Your task to perform on an android device: change the upload size in google photos Image 0: 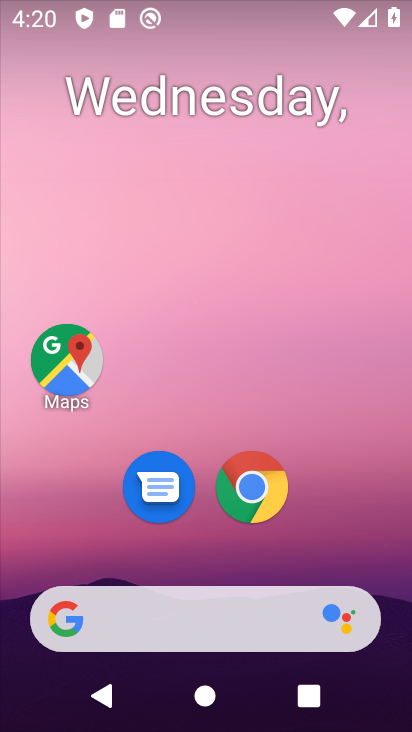
Step 0: press home button
Your task to perform on an android device: change the upload size in google photos Image 1: 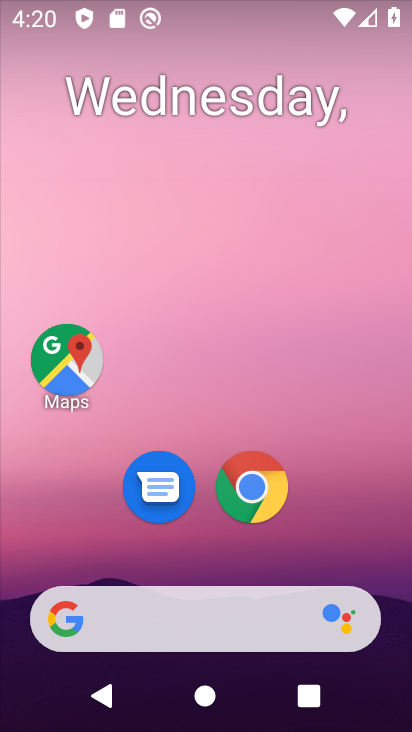
Step 1: drag from (203, 485) to (223, 59)
Your task to perform on an android device: change the upload size in google photos Image 2: 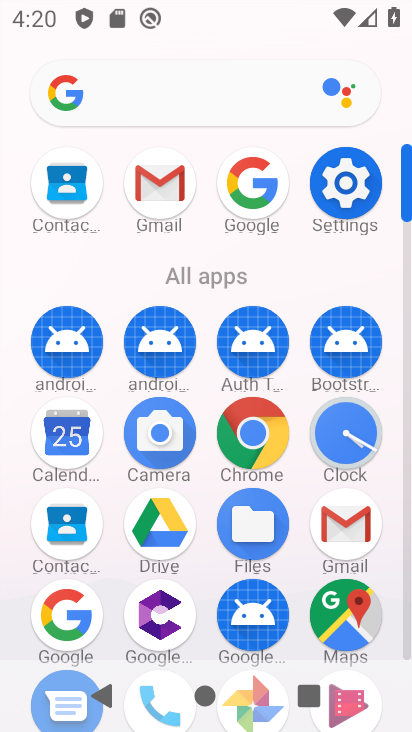
Step 2: drag from (205, 564) to (217, 127)
Your task to perform on an android device: change the upload size in google photos Image 3: 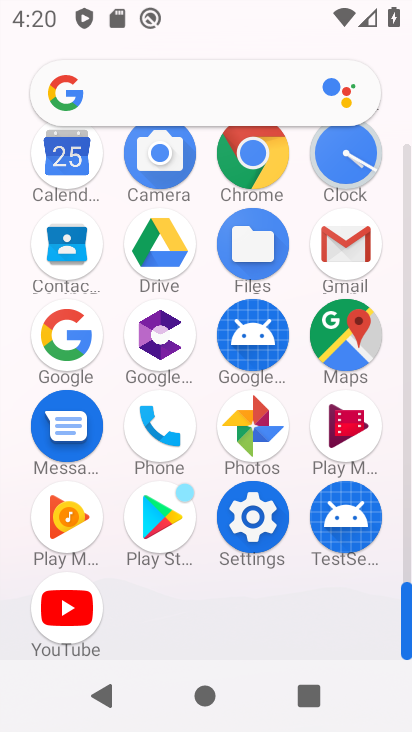
Step 3: click (252, 420)
Your task to perform on an android device: change the upload size in google photos Image 4: 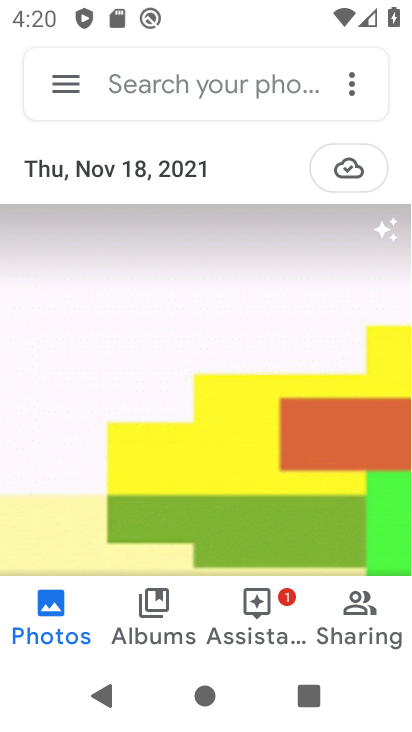
Step 4: click (60, 84)
Your task to perform on an android device: change the upload size in google photos Image 5: 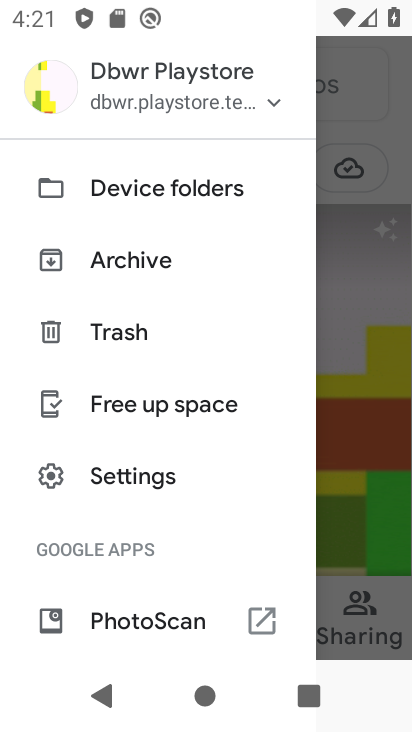
Step 5: click (181, 472)
Your task to perform on an android device: change the upload size in google photos Image 6: 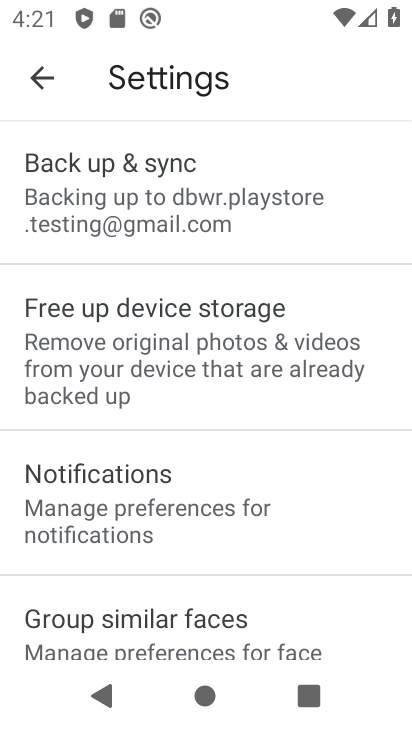
Step 6: click (240, 188)
Your task to perform on an android device: change the upload size in google photos Image 7: 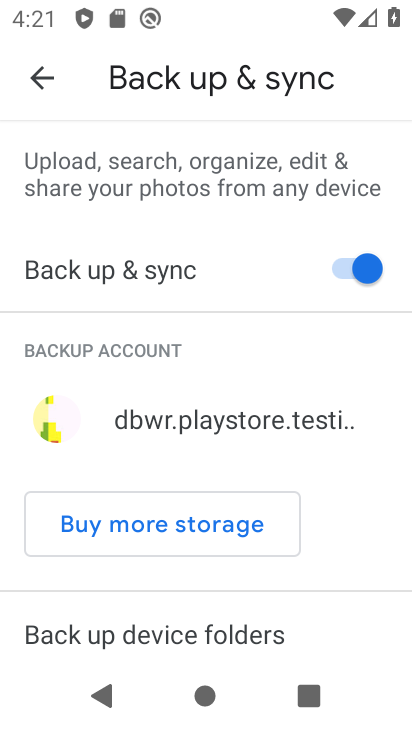
Step 7: drag from (204, 597) to (214, 197)
Your task to perform on an android device: change the upload size in google photos Image 8: 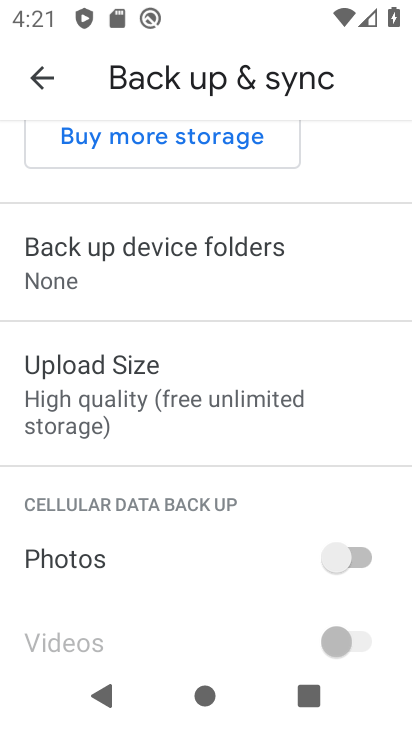
Step 8: click (180, 371)
Your task to perform on an android device: change the upload size in google photos Image 9: 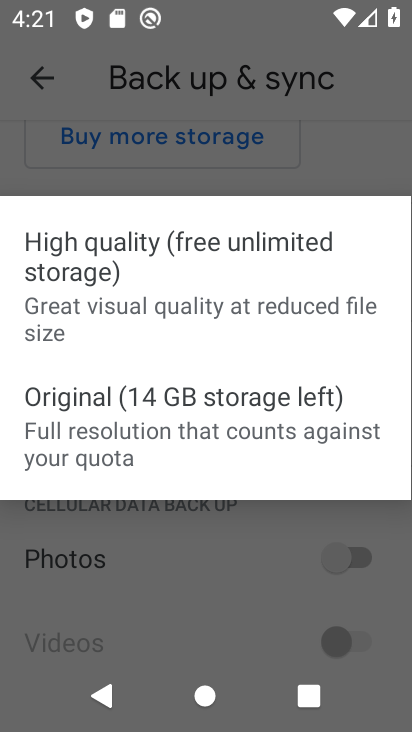
Step 9: click (202, 447)
Your task to perform on an android device: change the upload size in google photos Image 10: 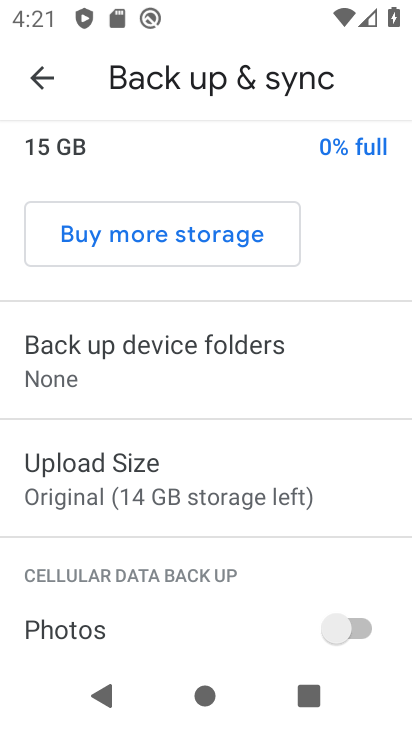
Step 10: task complete